Your task to perform on an android device: Go to calendar. Show me events next week Image 0: 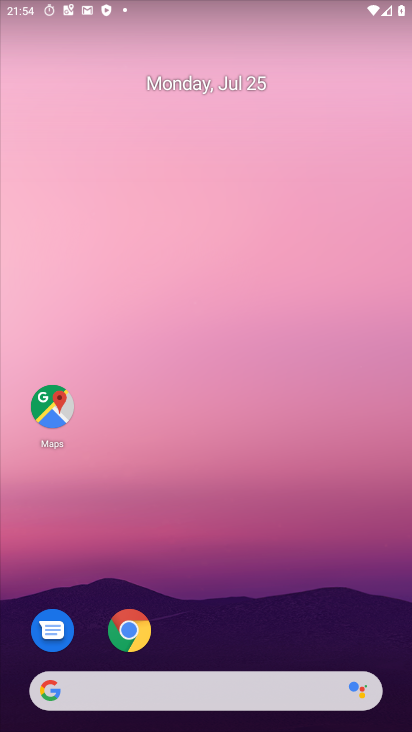
Step 0: press home button
Your task to perform on an android device: Go to calendar. Show me events next week Image 1: 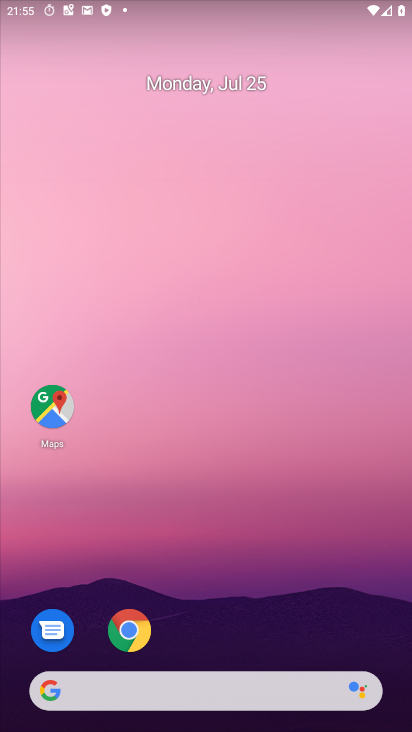
Step 1: drag from (233, 633) to (323, 22)
Your task to perform on an android device: Go to calendar. Show me events next week Image 2: 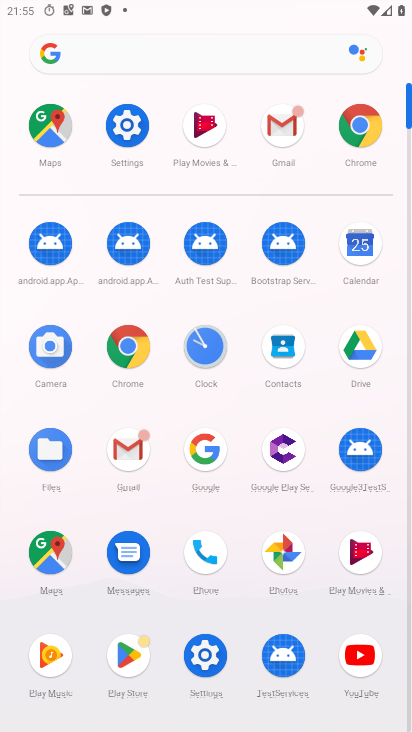
Step 2: click (361, 248)
Your task to perform on an android device: Go to calendar. Show me events next week Image 3: 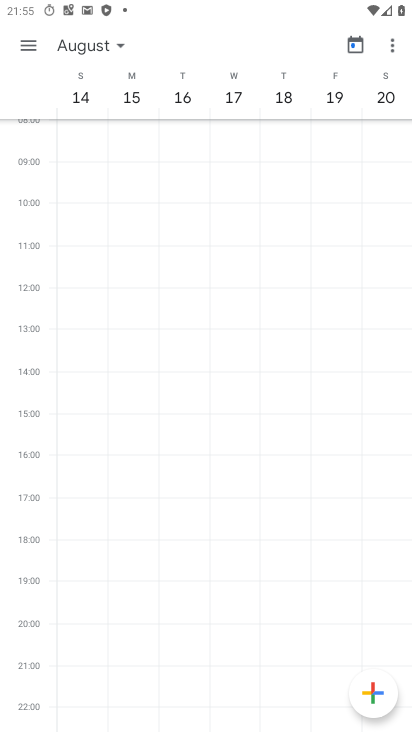
Step 3: click (26, 46)
Your task to perform on an android device: Go to calendar. Show me events next week Image 4: 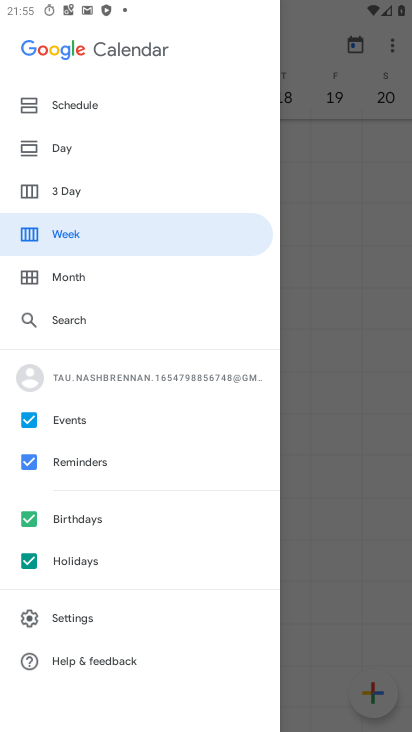
Step 4: click (66, 104)
Your task to perform on an android device: Go to calendar. Show me events next week Image 5: 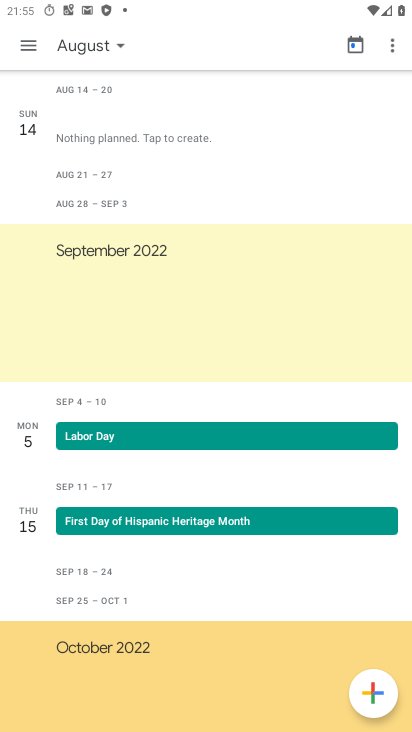
Step 5: task complete